Your task to perform on an android device: What's a good restaurant in Portland? Image 0: 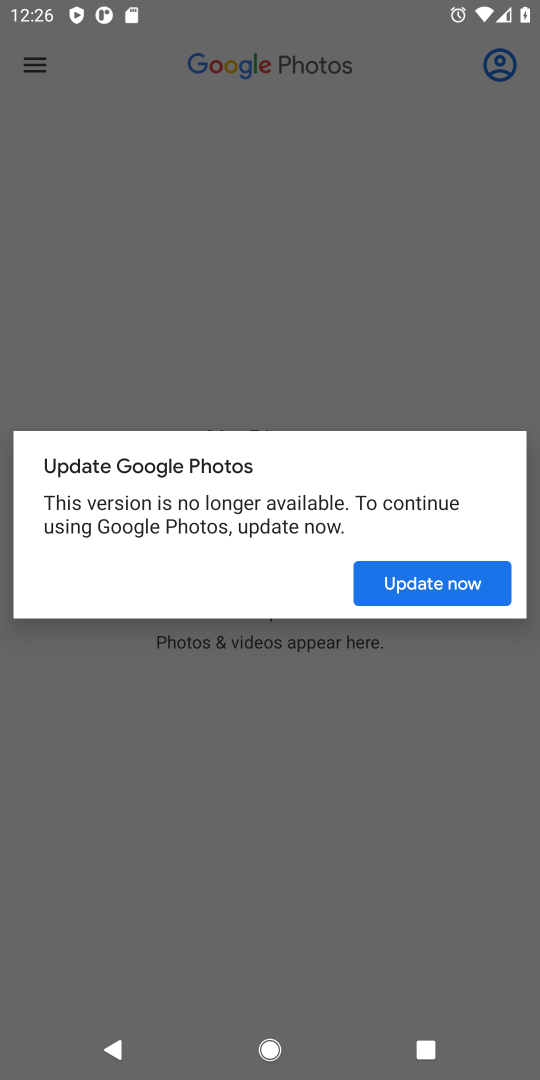
Step 0: press home button
Your task to perform on an android device: What's a good restaurant in Portland? Image 1: 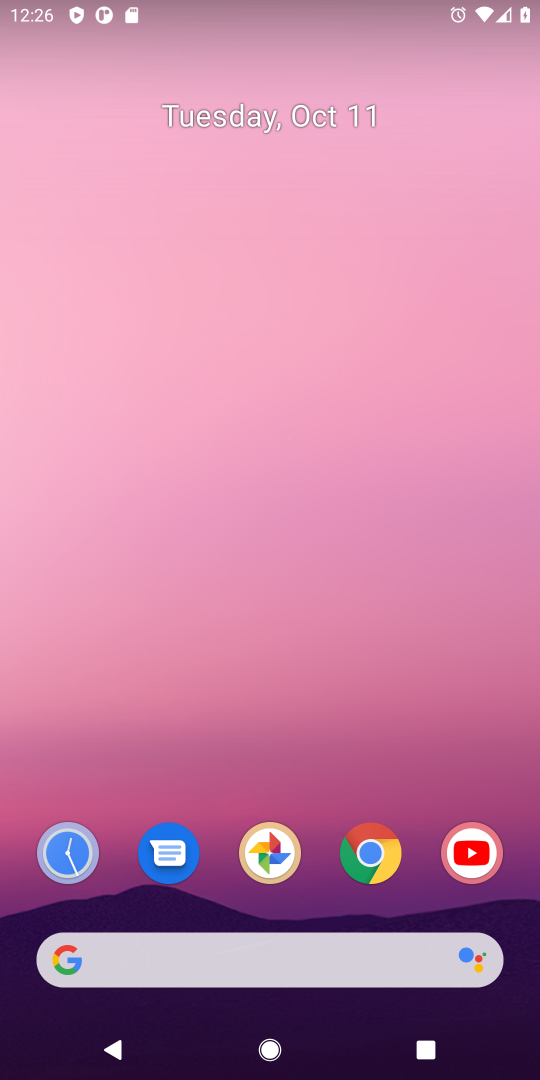
Step 1: click (380, 852)
Your task to perform on an android device: What's a good restaurant in Portland? Image 2: 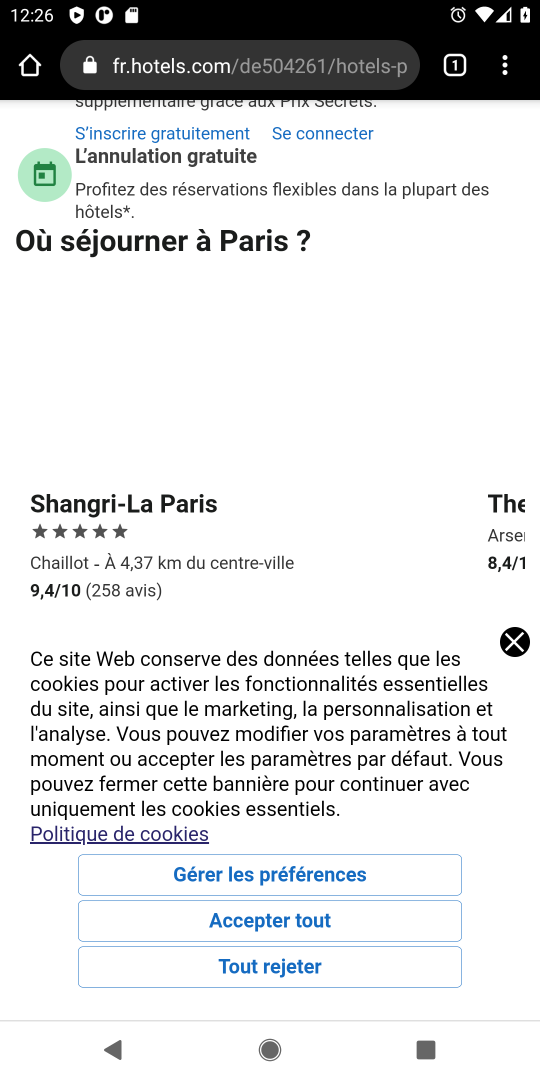
Step 2: click (278, 85)
Your task to perform on an android device: What's a good restaurant in Portland? Image 3: 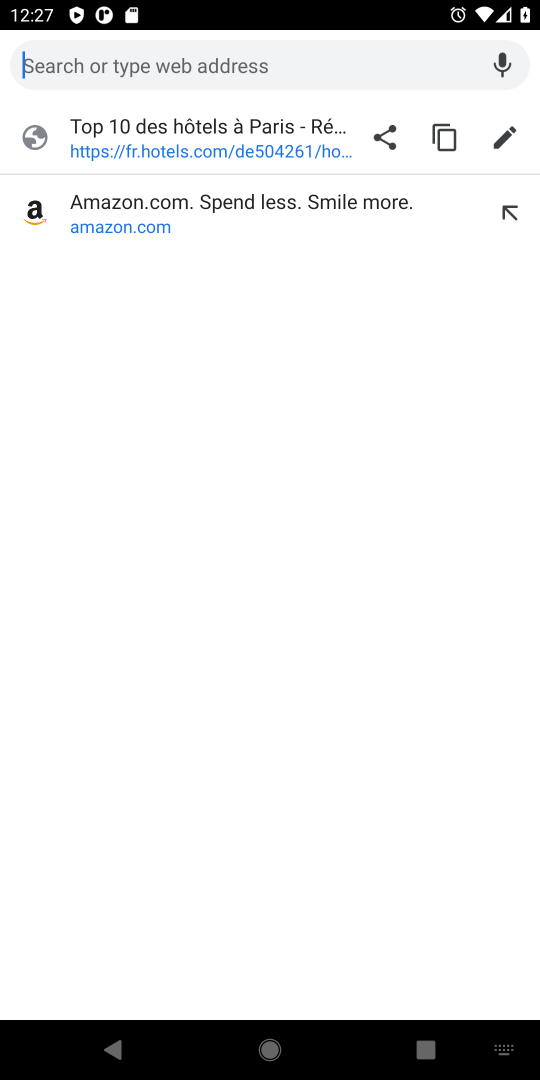
Step 3: type "What's a good restaurant in Portland?"
Your task to perform on an android device: What's a good restaurant in Portland? Image 4: 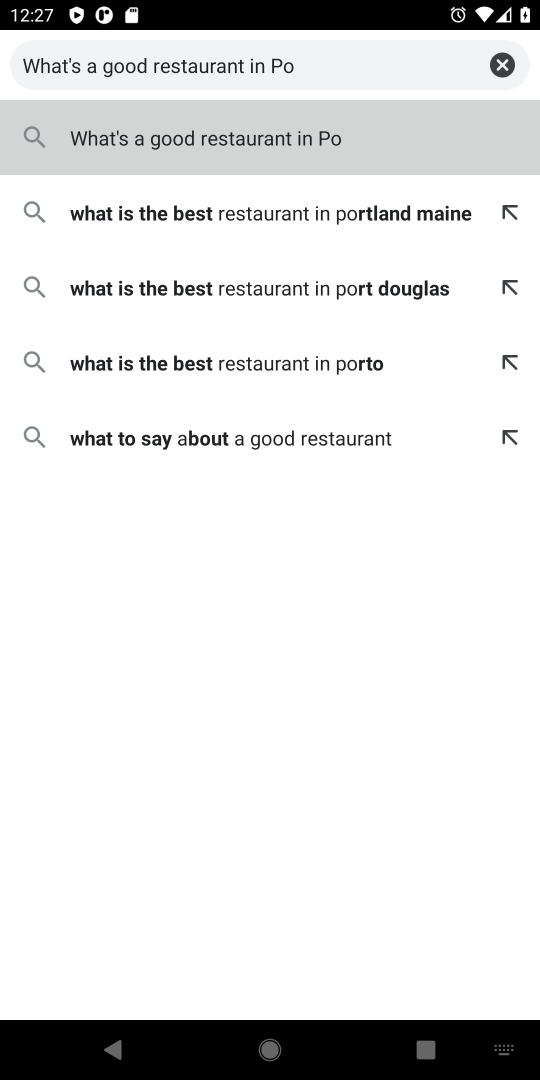
Step 4: type ""
Your task to perform on an android device: What's a good restaurant in Portland? Image 5: 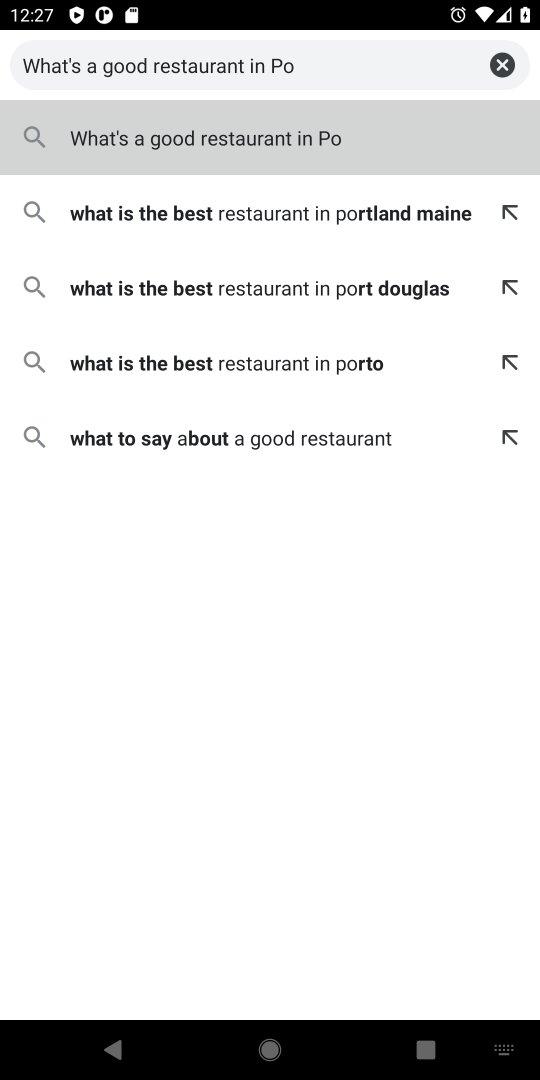
Step 5: click (454, 226)
Your task to perform on an android device: What's a good restaurant in Portland? Image 6: 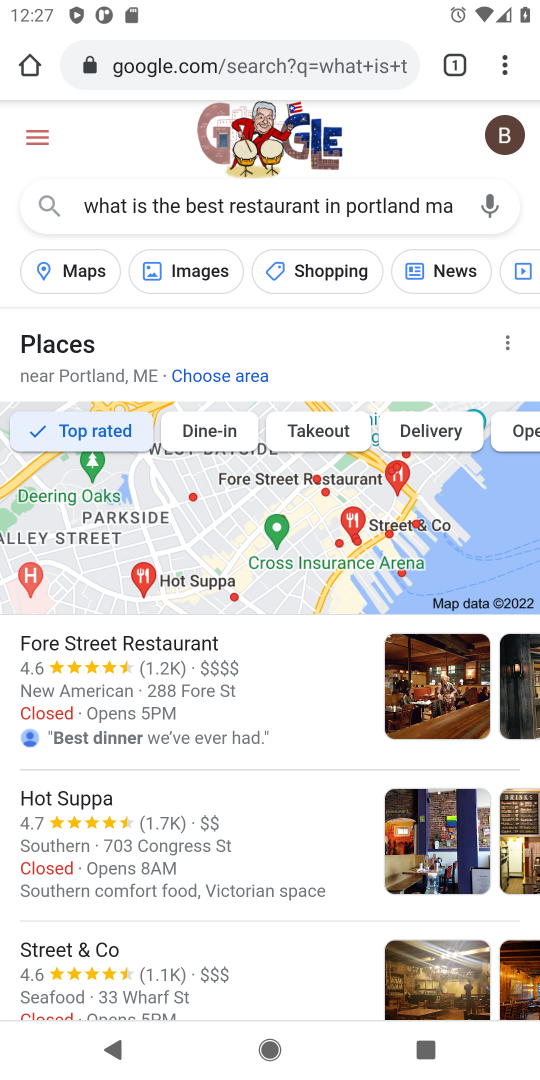
Step 6: drag from (193, 758) to (219, 264)
Your task to perform on an android device: What's a good restaurant in Portland? Image 7: 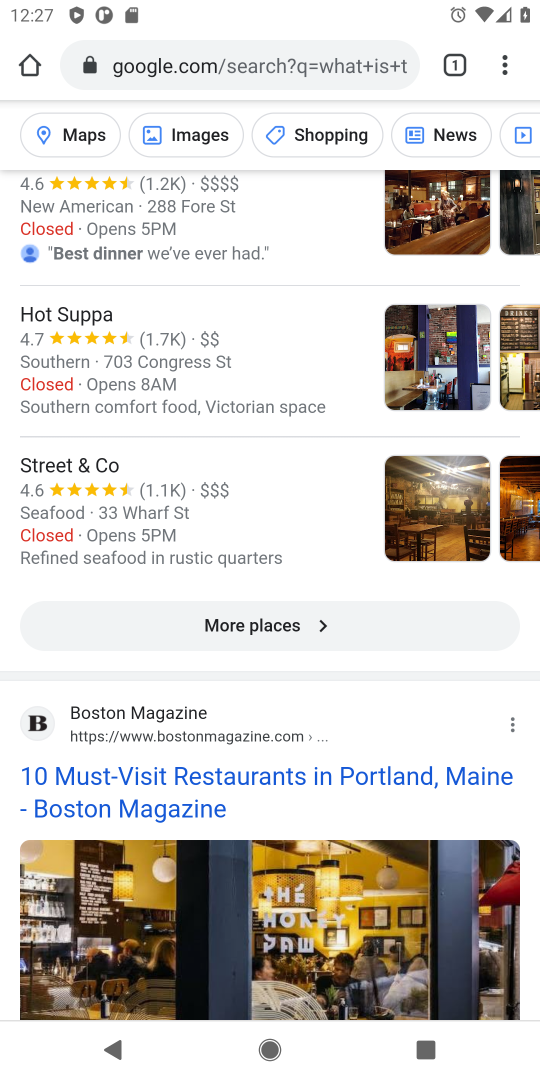
Step 7: click (143, 784)
Your task to perform on an android device: What's a good restaurant in Portland? Image 8: 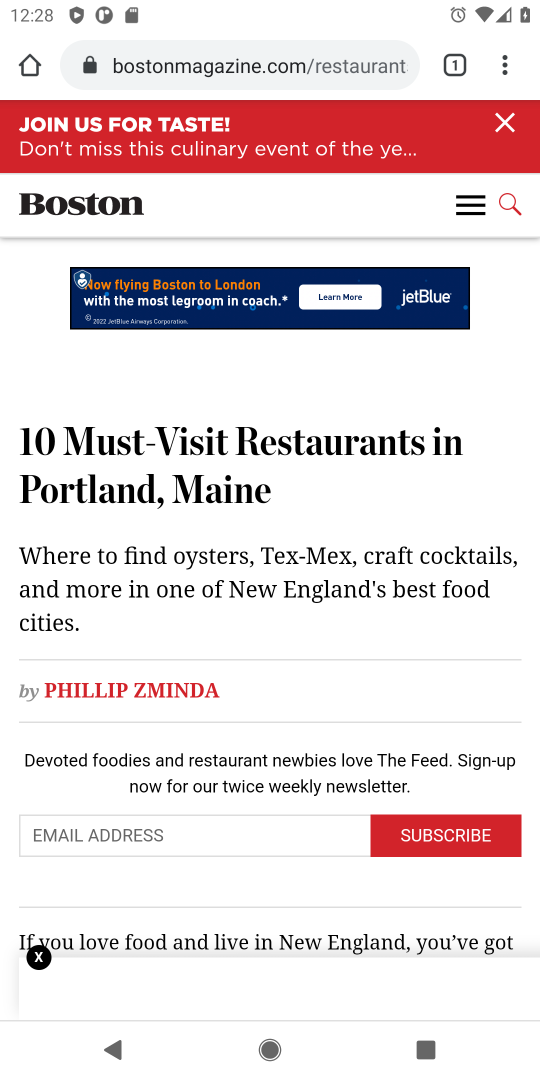
Step 8: task complete